Your task to perform on an android device: open device folders in google photos Image 0: 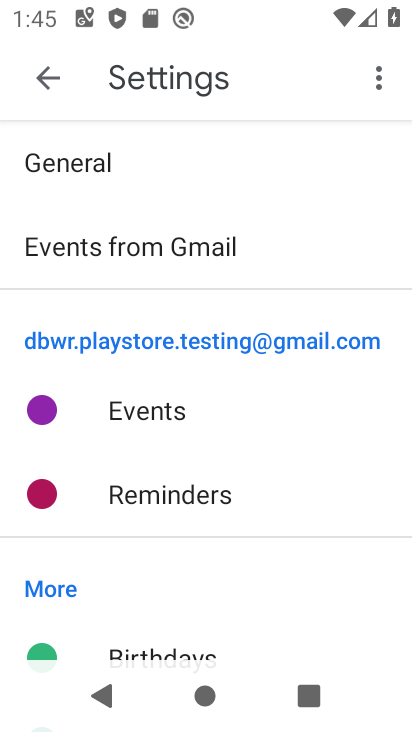
Step 0: press home button
Your task to perform on an android device: open device folders in google photos Image 1: 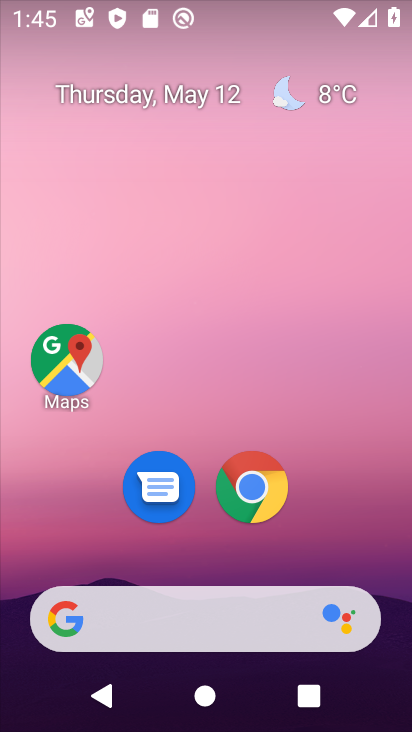
Step 1: drag from (289, 556) to (290, 38)
Your task to perform on an android device: open device folders in google photos Image 2: 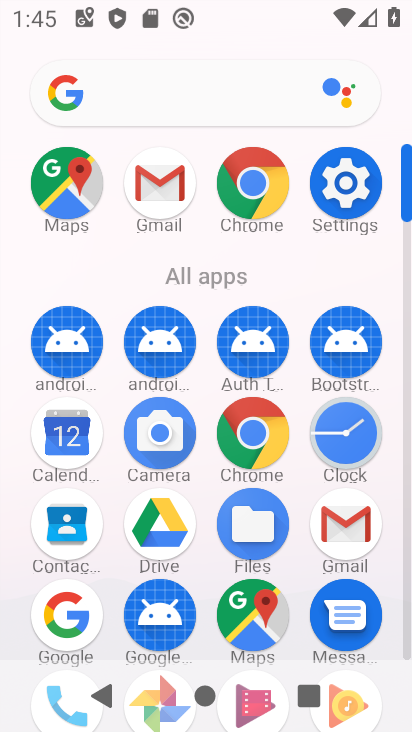
Step 2: drag from (205, 653) to (203, 329)
Your task to perform on an android device: open device folders in google photos Image 3: 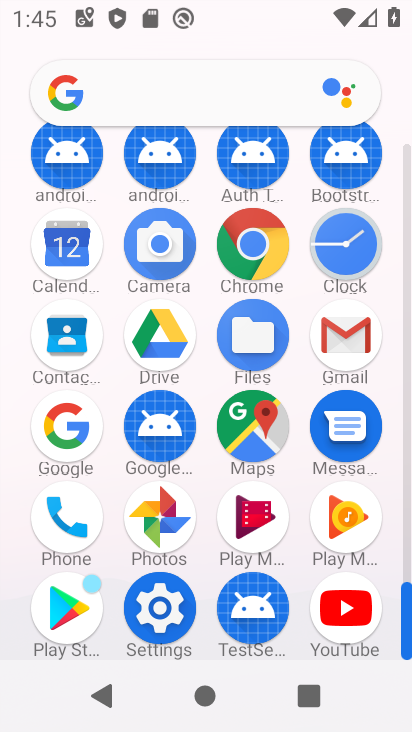
Step 3: click (159, 515)
Your task to perform on an android device: open device folders in google photos Image 4: 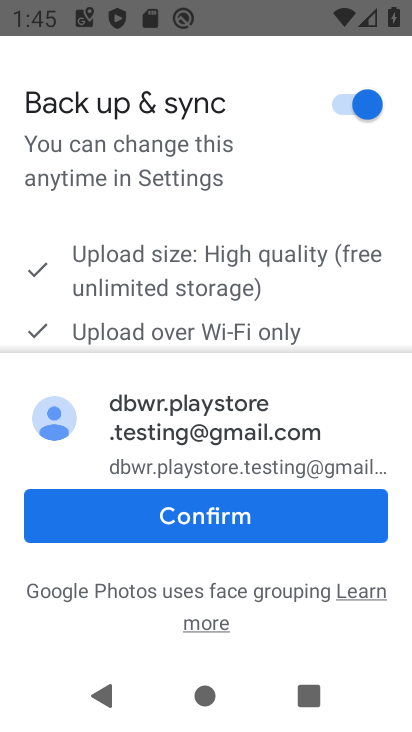
Step 4: click (181, 517)
Your task to perform on an android device: open device folders in google photos Image 5: 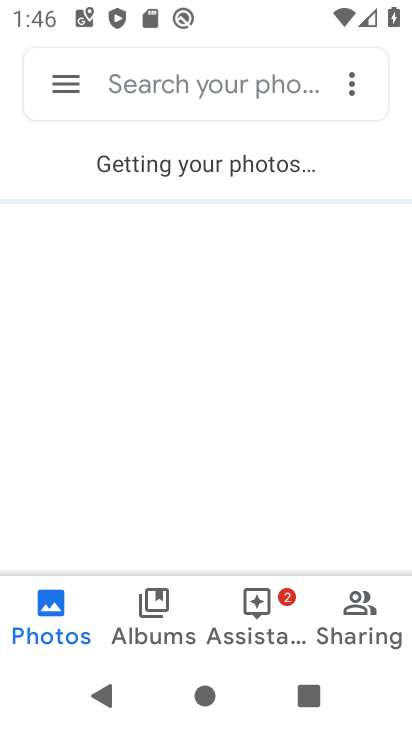
Step 5: click (74, 74)
Your task to perform on an android device: open device folders in google photos Image 6: 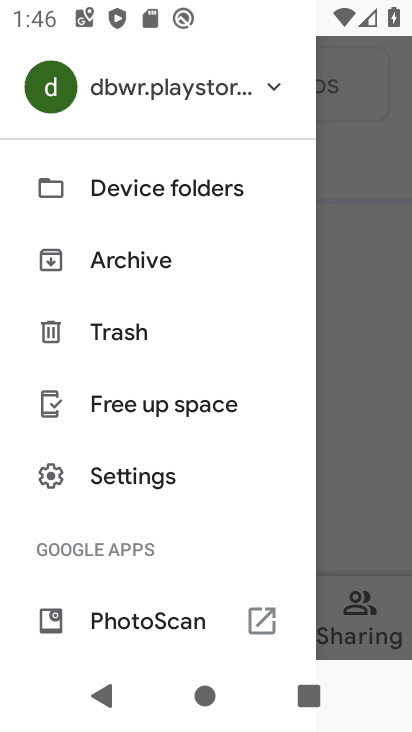
Step 6: click (141, 192)
Your task to perform on an android device: open device folders in google photos Image 7: 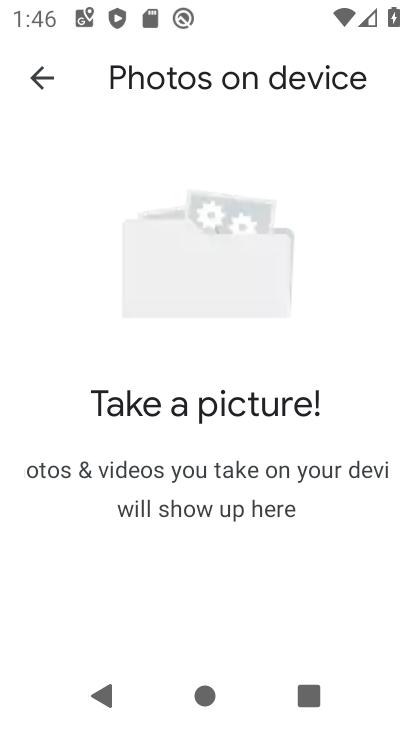
Step 7: task complete